Your task to perform on an android device: Open Yahoo.com Image 0: 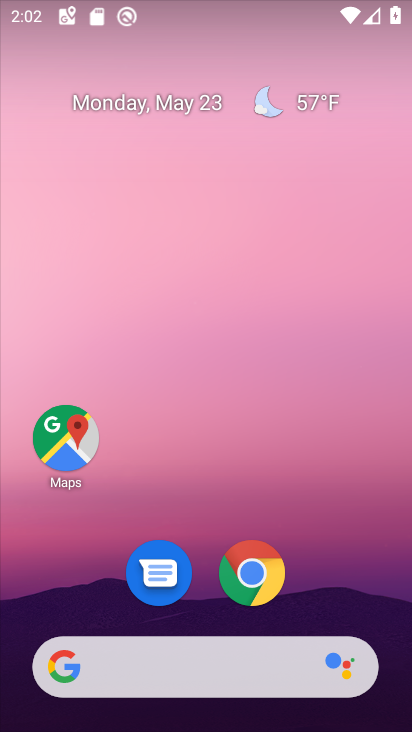
Step 0: drag from (357, 590) to (336, 1)
Your task to perform on an android device: Open Yahoo.com Image 1: 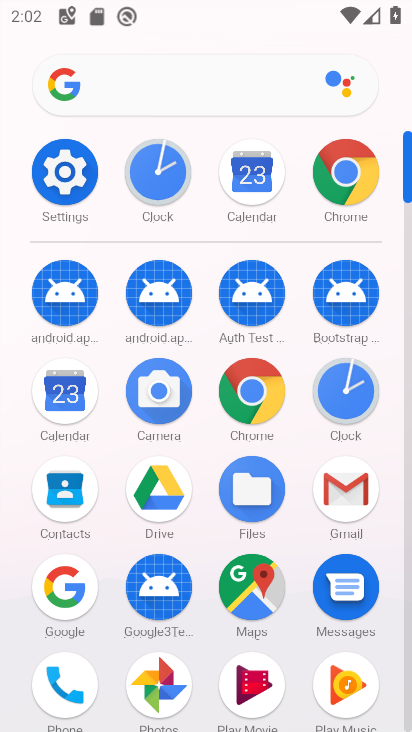
Step 1: click (349, 158)
Your task to perform on an android device: Open Yahoo.com Image 2: 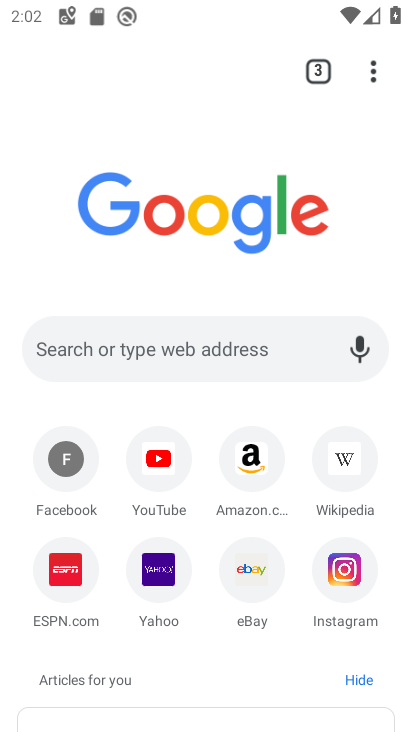
Step 2: click (147, 584)
Your task to perform on an android device: Open Yahoo.com Image 3: 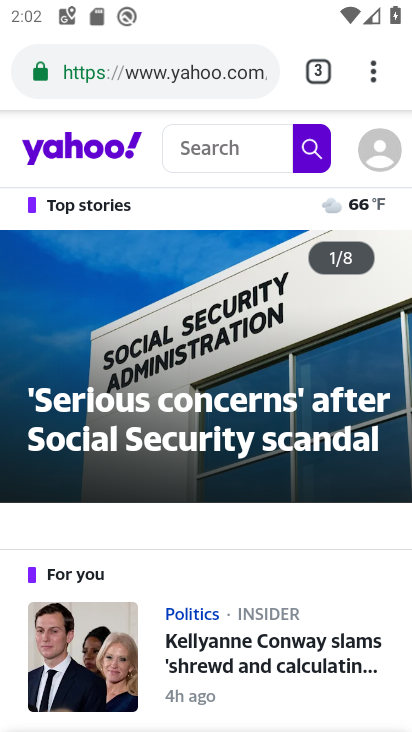
Step 3: task complete